Your task to perform on an android device: turn on translation in the chrome app Image 0: 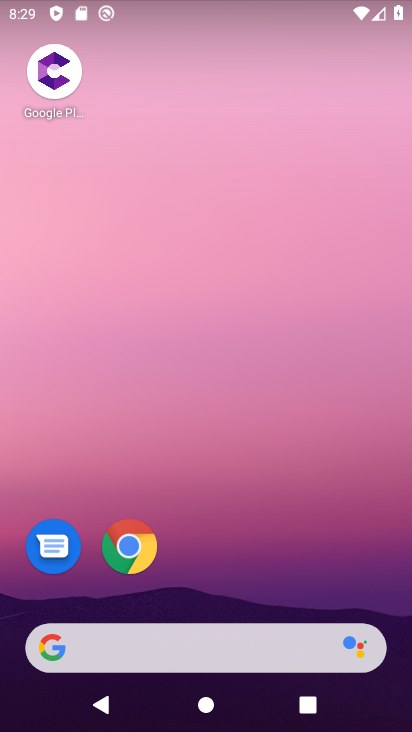
Step 0: click (132, 544)
Your task to perform on an android device: turn on translation in the chrome app Image 1: 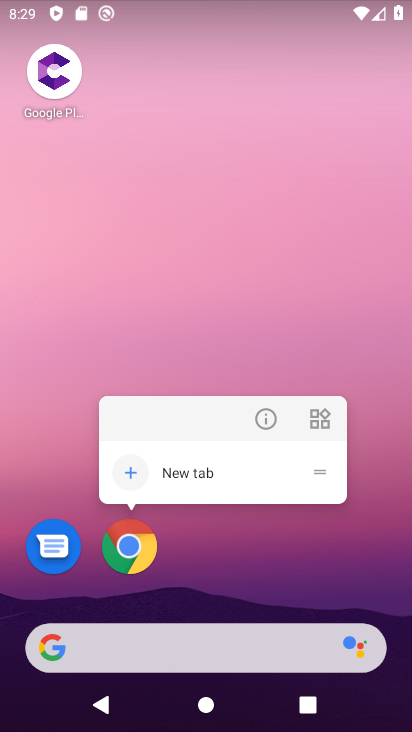
Step 1: click (135, 533)
Your task to perform on an android device: turn on translation in the chrome app Image 2: 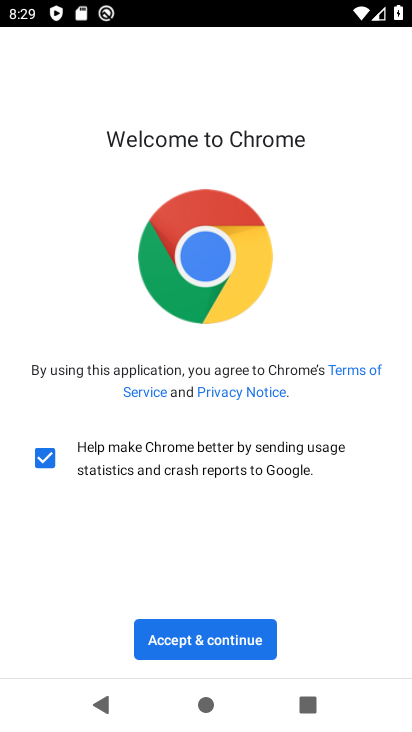
Step 2: click (184, 640)
Your task to perform on an android device: turn on translation in the chrome app Image 3: 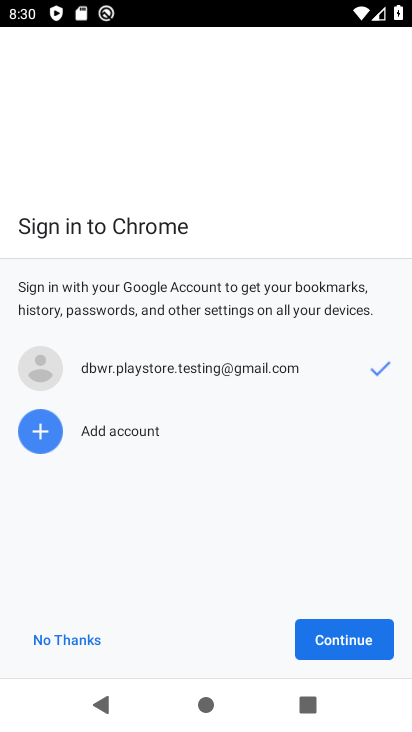
Step 3: click (311, 637)
Your task to perform on an android device: turn on translation in the chrome app Image 4: 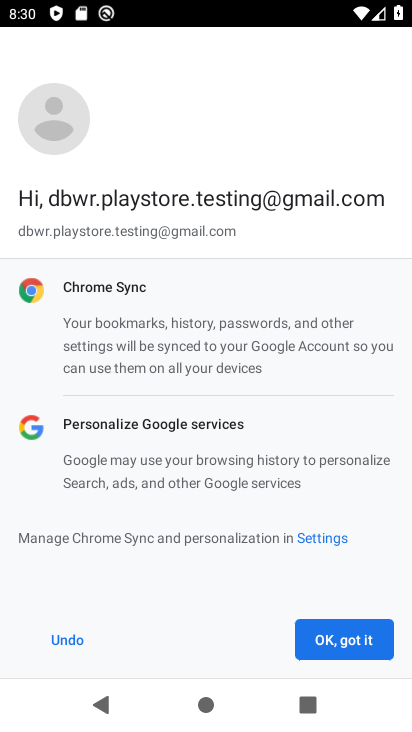
Step 4: click (306, 629)
Your task to perform on an android device: turn on translation in the chrome app Image 5: 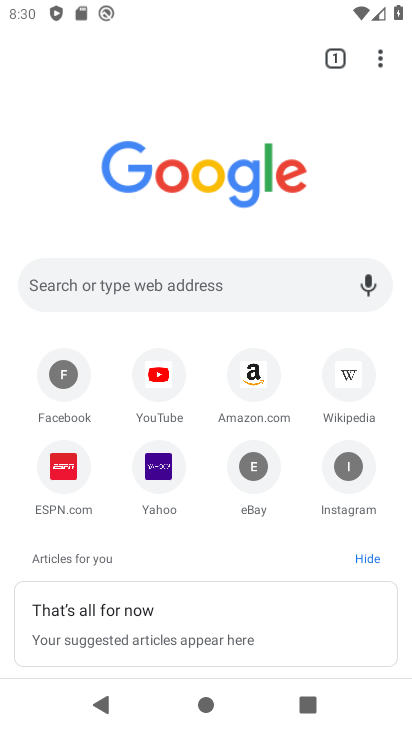
Step 5: click (373, 62)
Your task to perform on an android device: turn on translation in the chrome app Image 6: 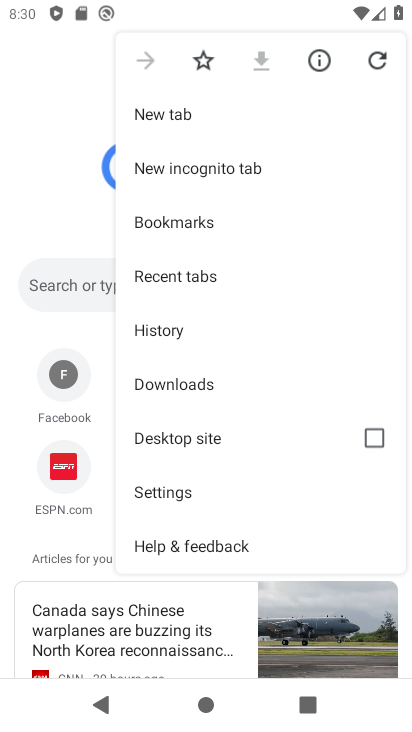
Step 6: click (244, 485)
Your task to perform on an android device: turn on translation in the chrome app Image 7: 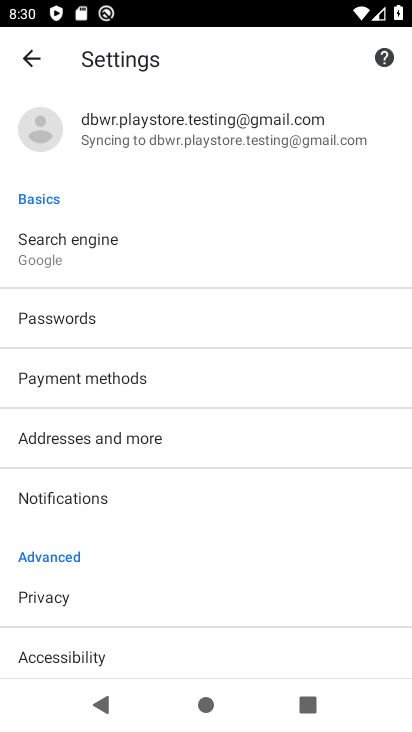
Step 7: drag from (112, 579) to (178, 304)
Your task to perform on an android device: turn on translation in the chrome app Image 8: 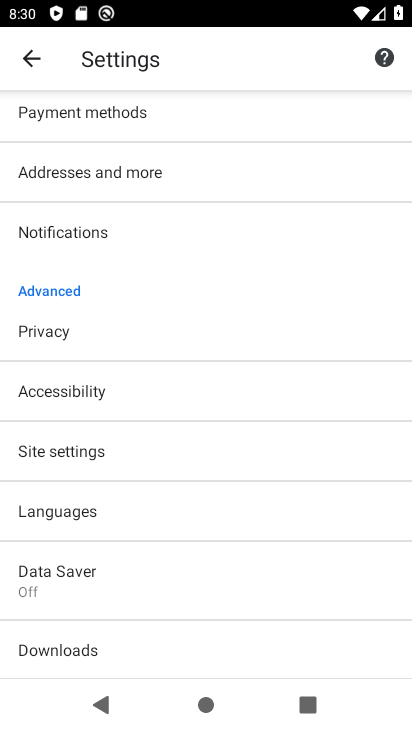
Step 8: click (108, 502)
Your task to perform on an android device: turn on translation in the chrome app Image 9: 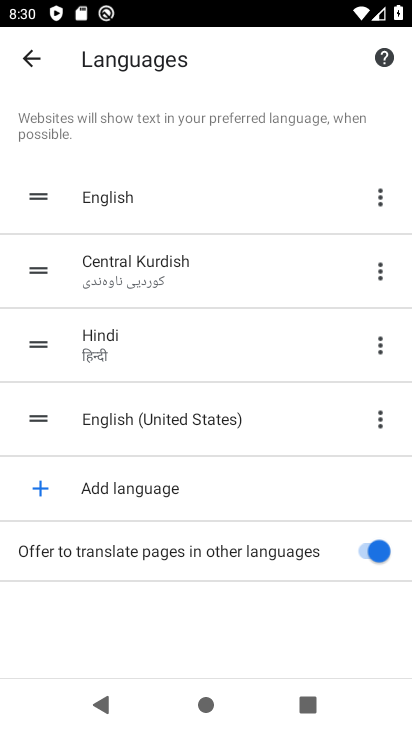
Step 9: task complete